Your task to perform on an android device: Open Google Chrome and open the bookmarks view Image 0: 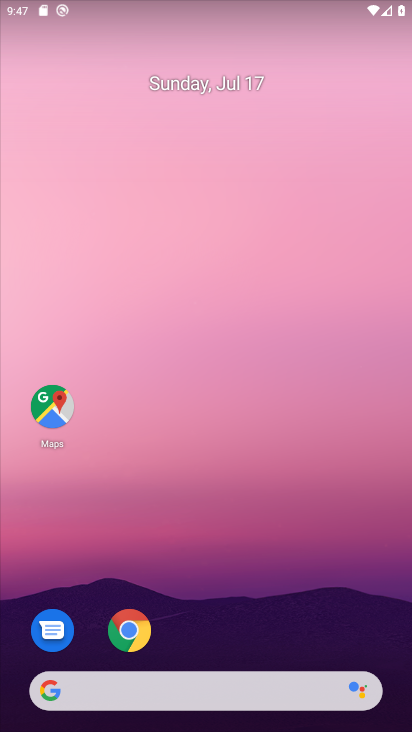
Step 0: click (139, 633)
Your task to perform on an android device: Open Google Chrome and open the bookmarks view Image 1: 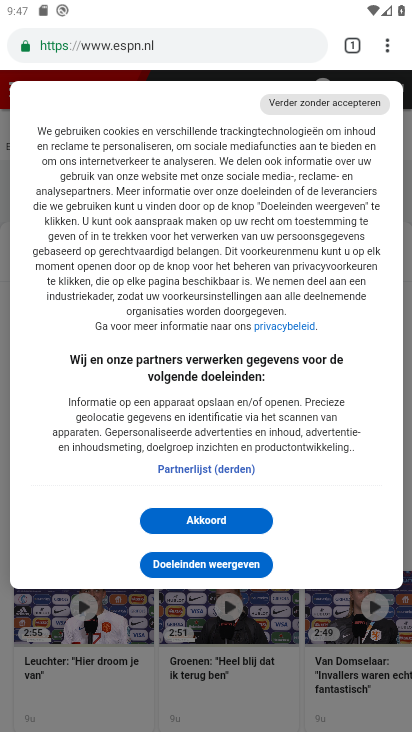
Step 1: click (391, 43)
Your task to perform on an android device: Open Google Chrome and open the bookmarks view Image 2: 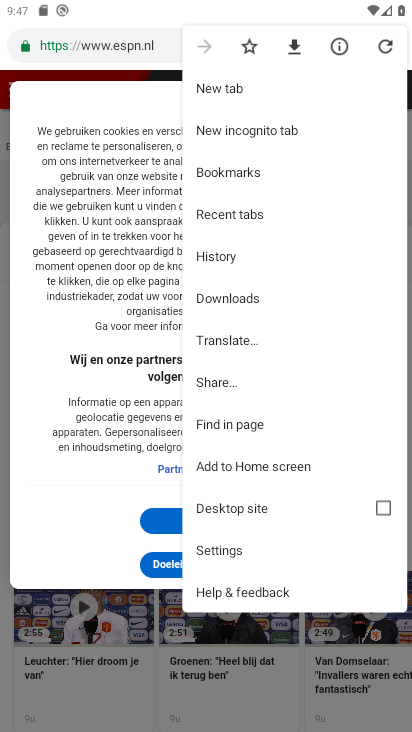
Step 2: click (222, 178)
Your task to perform on an android device: Open Google Chrome and open the bookmarks view Image 3: 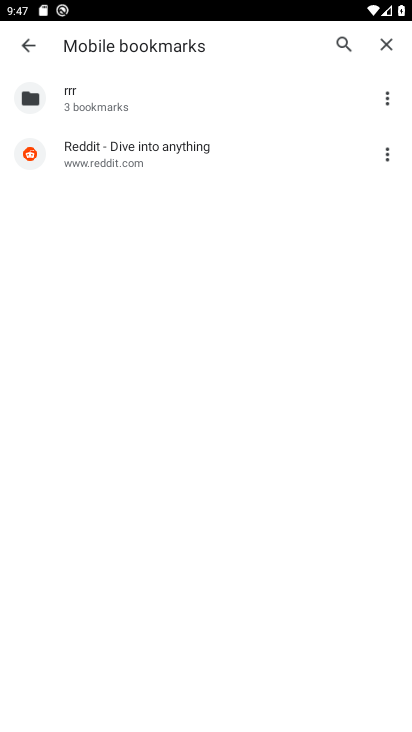
Step 3: task complete